Your task to perform on an android device: Go to Google maps Image 0: 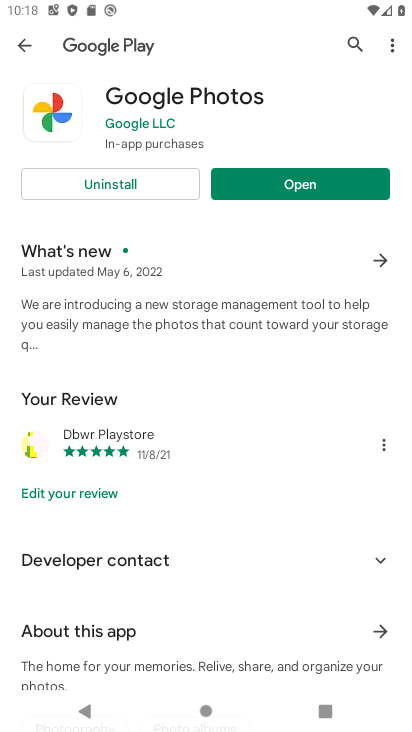
Step 0: press home button
Your task to perform on an android device: Go to Google maps Image 1: 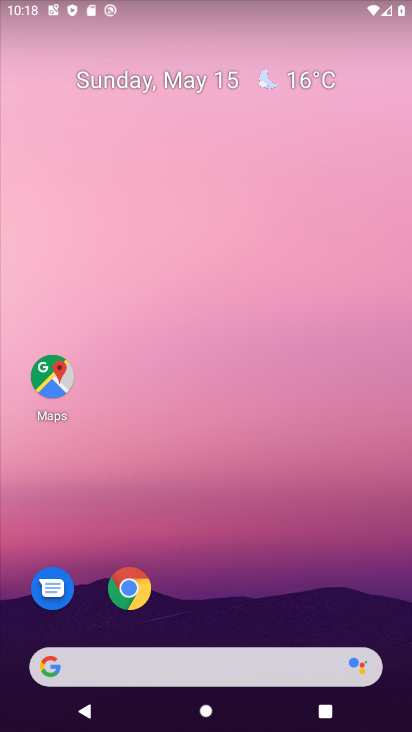
Step 1: click (58, 372)
Your task to perform on an android device: Go to Google maps Image 2: 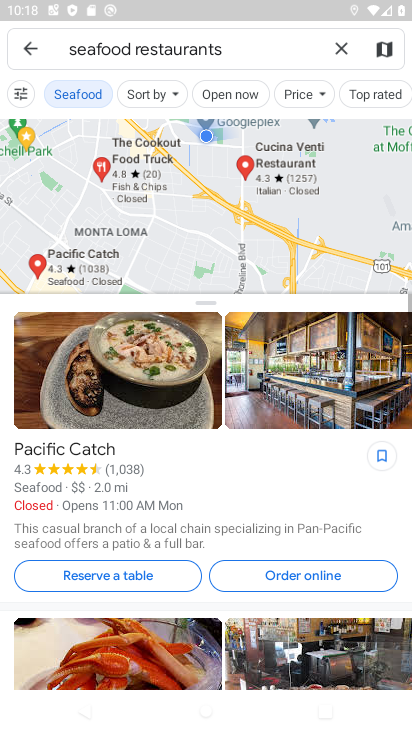
Step 2: task complete